Your task to perform on an android device: See recent photos Image 0: 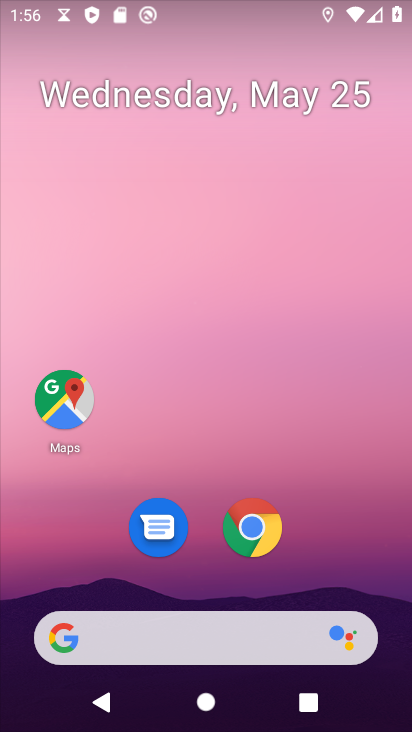
Step 0: drag from (149, 601) to (219, 107)
Your task to perform on an android device: See recent photos Image 1: 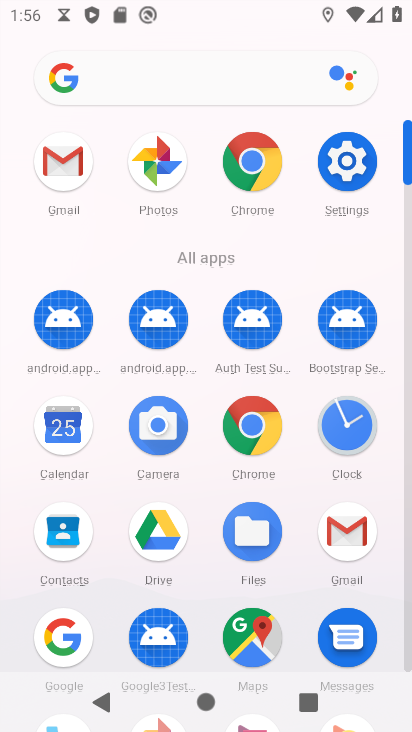
Step 1: drag from (169, 603) to (218, 355)
Your task to perform on an android device: See recent photos Image 2: 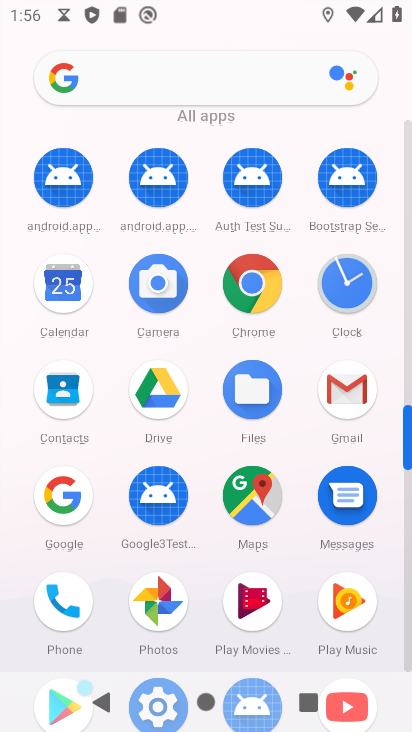
Step 2: click (164, 622)
Your task to perform on an android device: See recent photos Image 3: 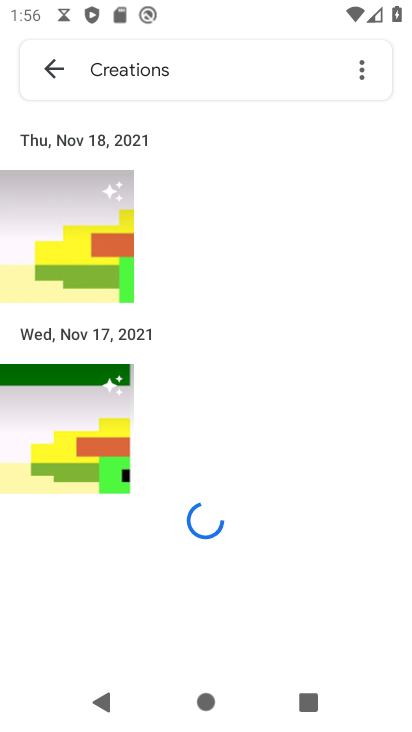
Step 3: click (62, 68)
Your task to perform on an android device: See recent photos Image 4: 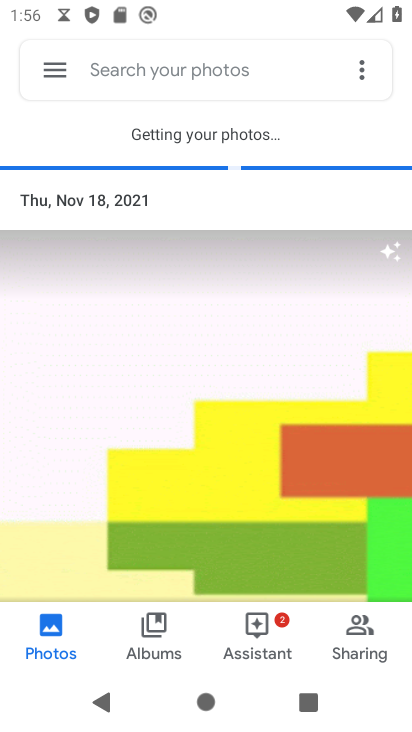
Step 4: task complete